Your task to perform on an android device: Open wifi settings Image 0: 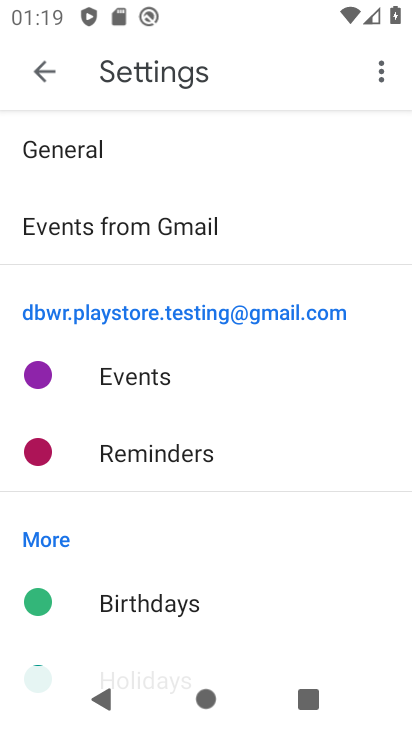
Step 0: press home button
Your task to perform on an android device: Open wifi settings Image 1: 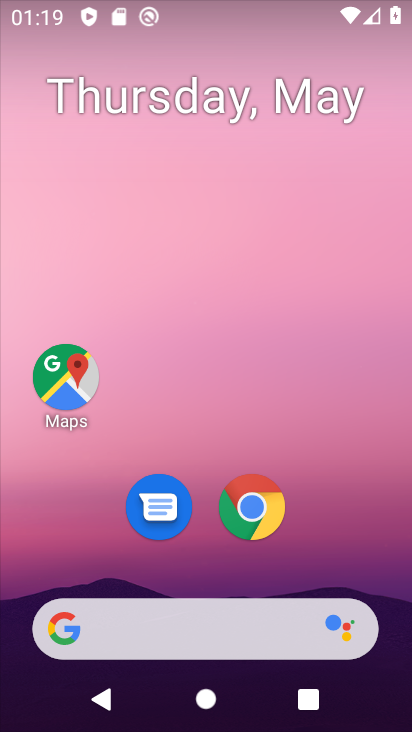
Step 1: drag from (307, 452) to (330, 150)
Your task to perform on an android device: Open wifi settings Image 2: 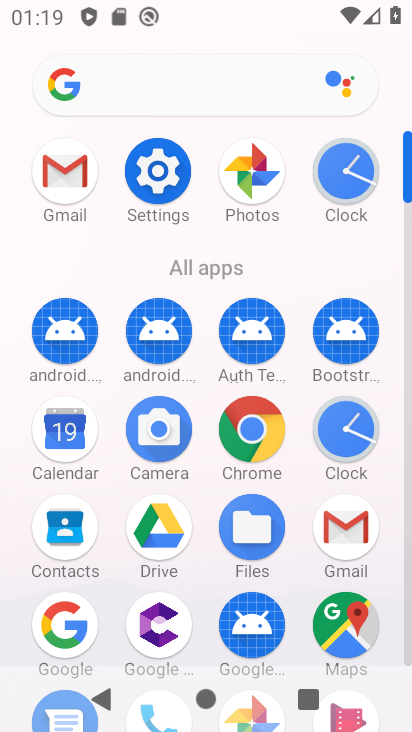
Step 2: click (163, 164)
Your task to perform on an android device: Open wifi settings Image 3: 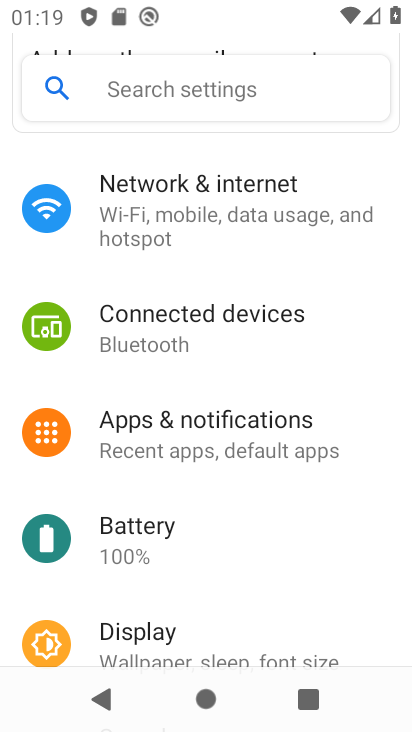
Step 3: click (224, 169)
Your task to perform on an android device: Open wifi settings Image 4: 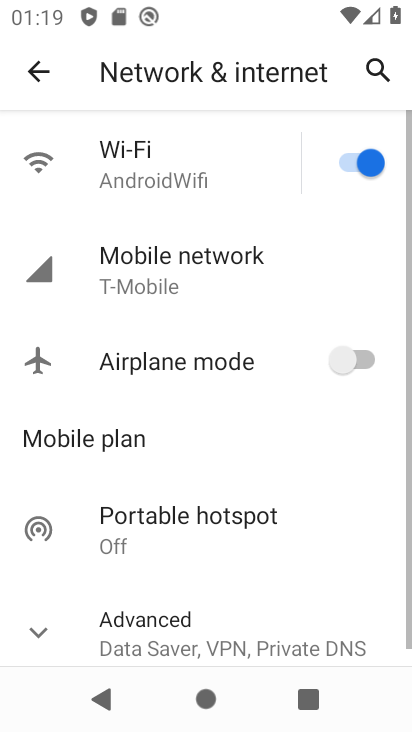
Step 4: click (151, 273)
Your task to perform on an android device: Open wifi settings Image 5: 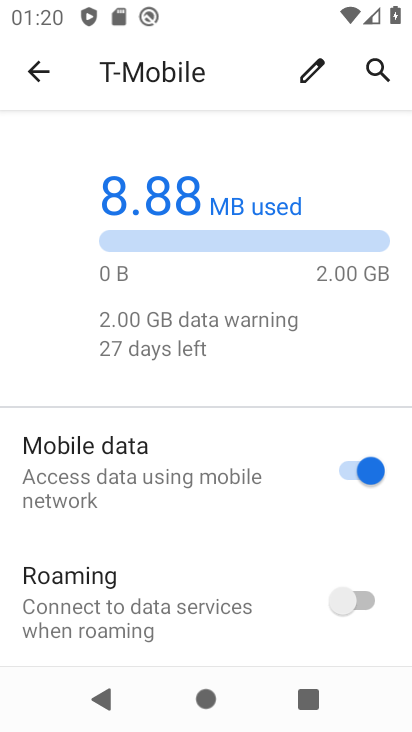
Step 5: task complete